Your task to perform on an android device: When is my next meeting? Image 0: 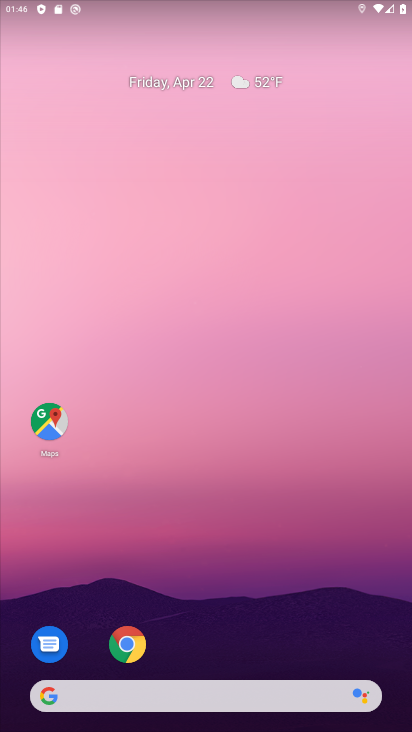
Step 0: drag from (289, 345) to (275, 283)
Your task to perform on an android device: When is my next meeting? Image 1: 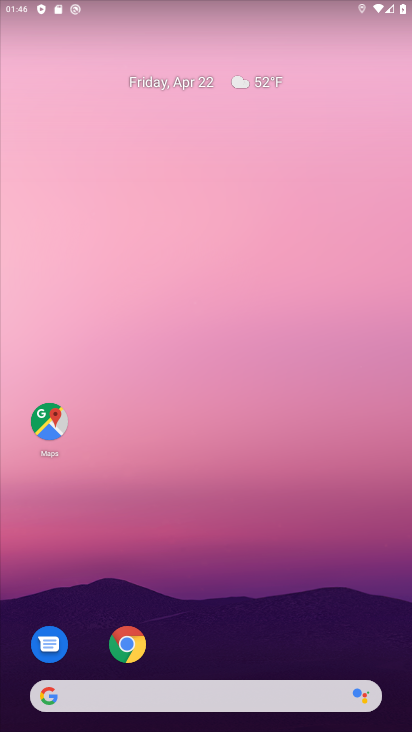
Step 1: drag from (272, 637) to (217, 230)
Your task to perform on an android device: When is my next meeting? Image 2: 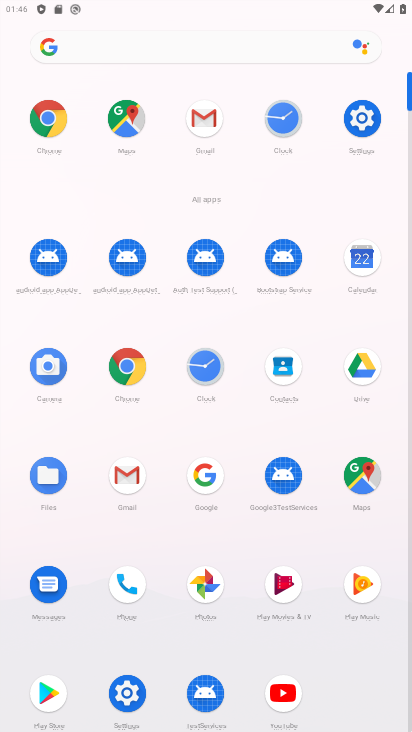
Step 2: click (360, 275)
Your task to perform on an android device: When is my next meeting? Image 3: 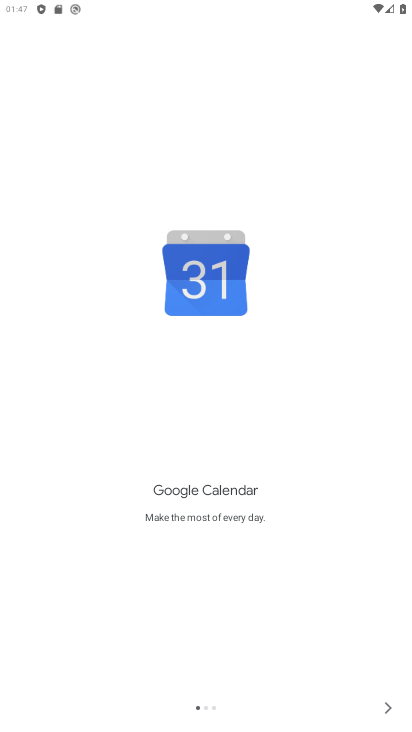
Step 3: click (395, 711)
Your task to perform on an android device: When is my next meeting? Image 4: 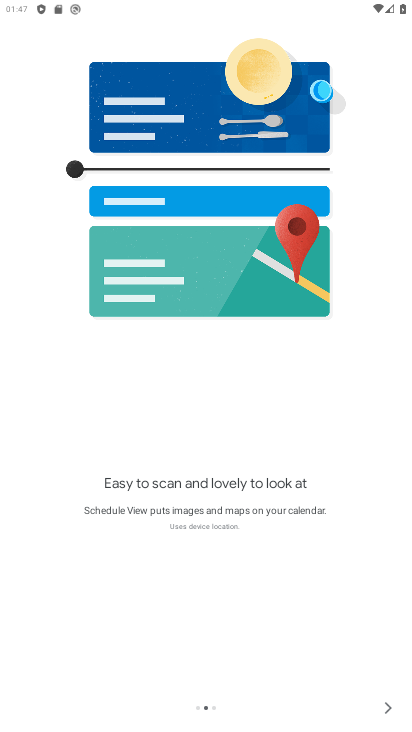
Step 4: click (392, 709)
Your task to perform on an android device: When is my next meeting? Image 5: 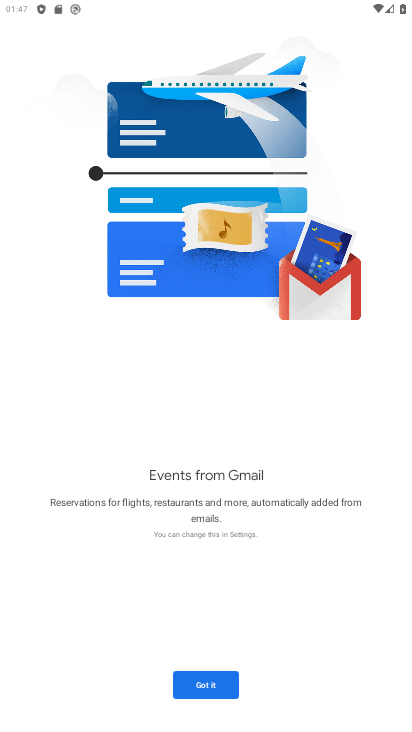
Step 5: click (392, 709)
Your task to perform on an android device: When is my next meeting? Image 6: 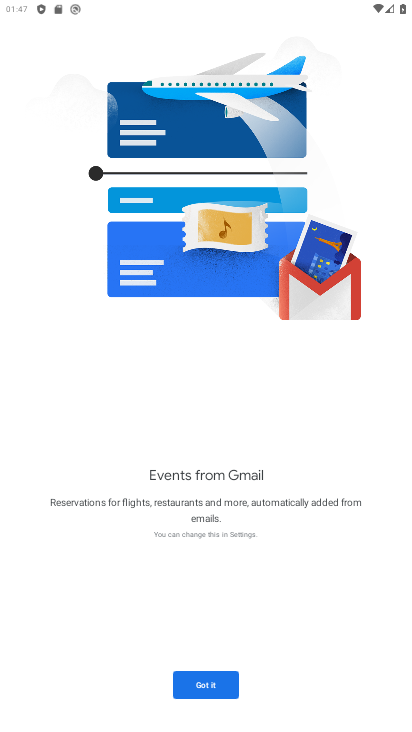
Step 6: click (192, 686)
Your task to perform on an android device: When is my next meeting? Image 7: 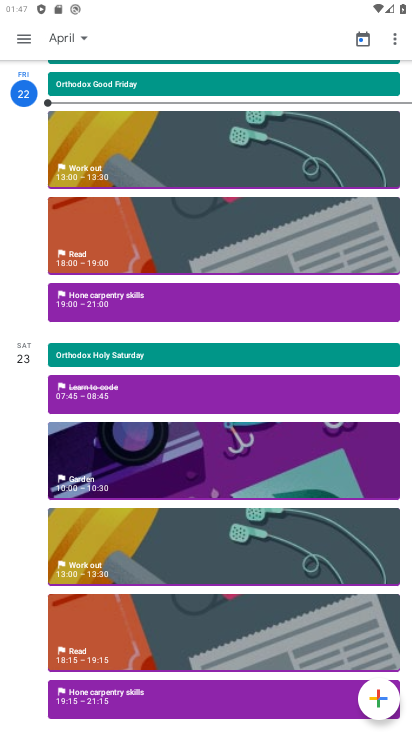
Step 7: click (25, 40)
Your task to perform on an android device: When is my next meeting? Image 8: 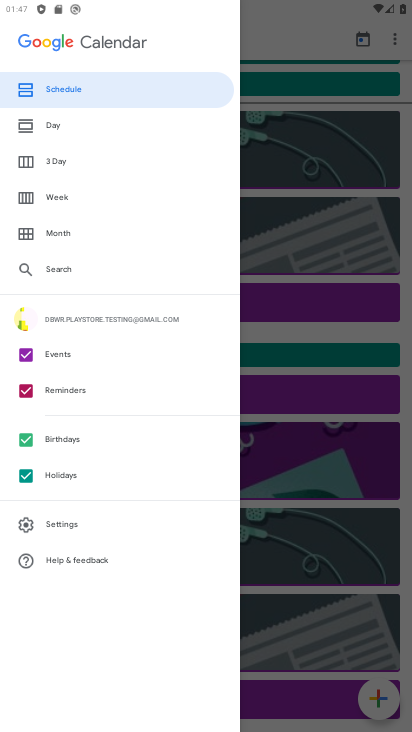
Step 8: click (63, 120)
Your task to perform on an android device: When is my next meeting? Image 9: 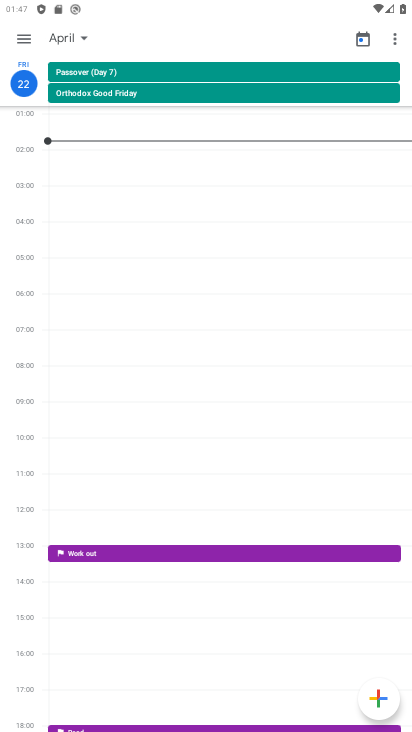
Step 9: task complete